Your task to perform on an android device: delete browsing data in the chrome app Image 0: 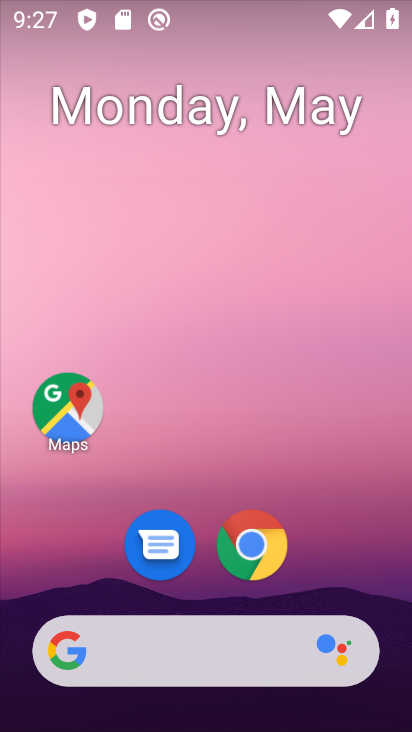
Step 0: click (262, 552)
Your task to perform on an android device: delete browsing data in the chrome app Image 1: 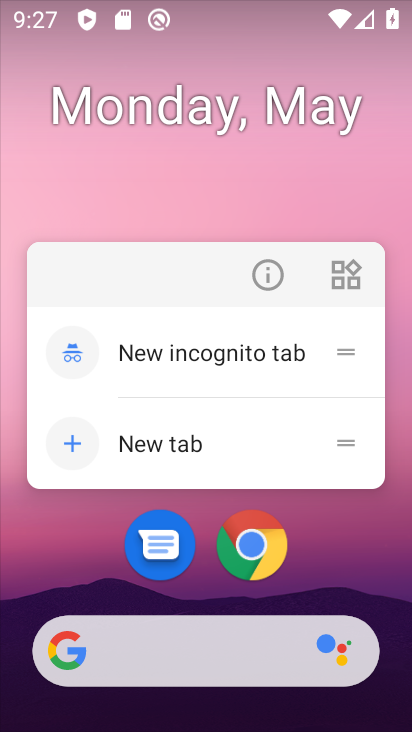
Step 1: click (264, 564)
Your task to perform on an android device: delete browsing data in the chrome app Image 2: 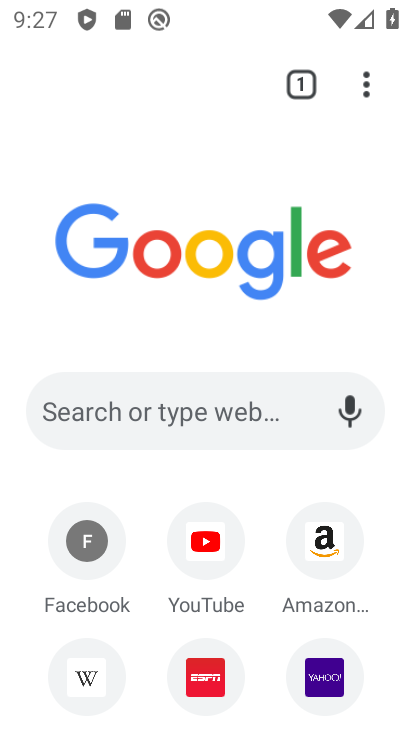
Step 2: click (366, 81)
Your task to perform on an android device: delete browsing data in the chrome app Image 3: 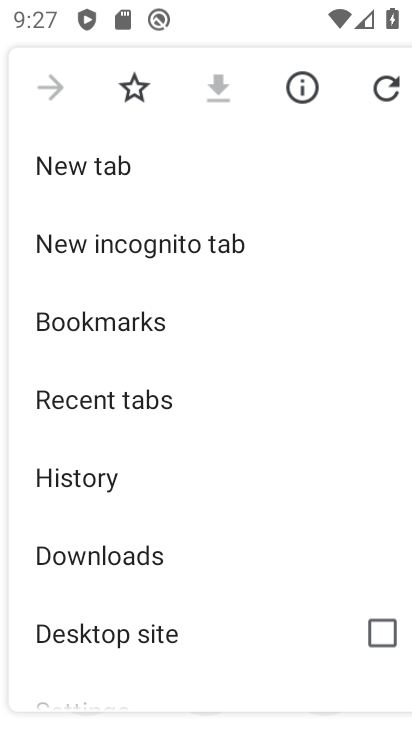
Step 3: click (116, 484)
Your task to perform on an android device: delete browsing data in the chrome app Image 4: 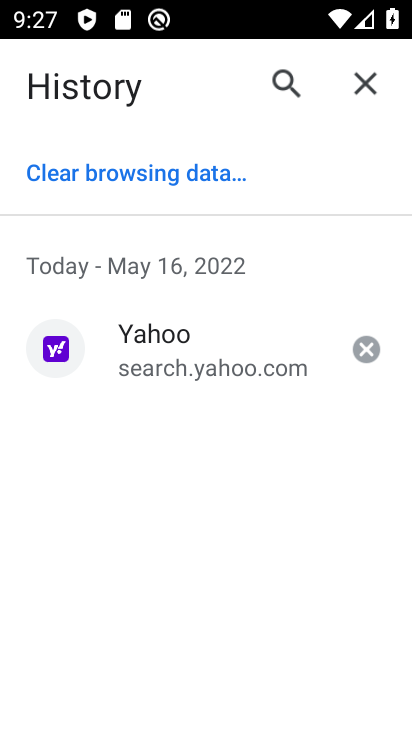
Step 4: click (196, 171)
Your task to perform on an android device: delete browsing data in the chrome app Image 5: 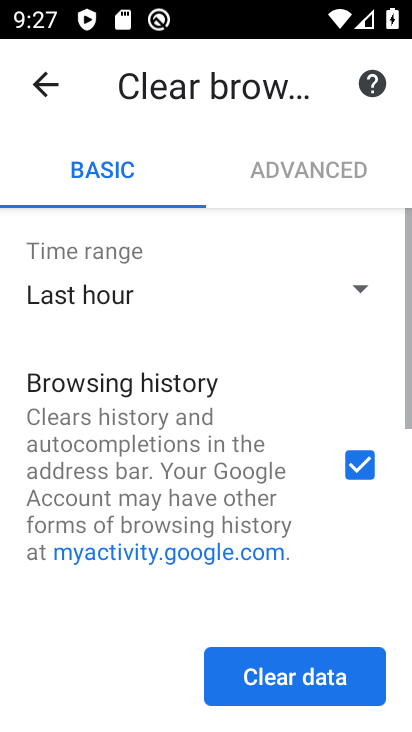
Step 5: drag from (301, 546) to (334, 272)
Your task to perform on an android device: delete browsing data in the chrome app Image 6: 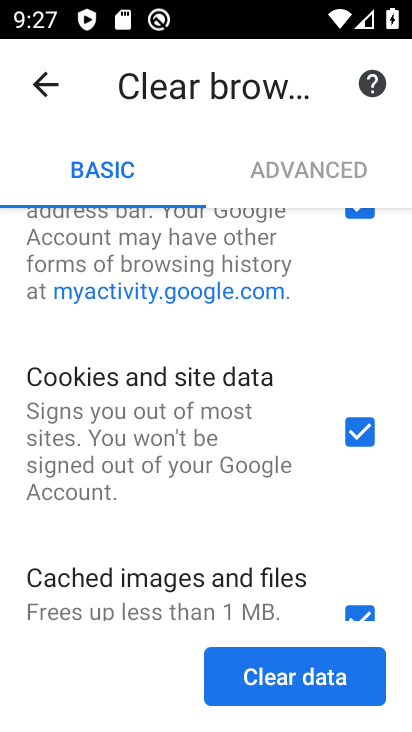
Step 6: click (356, 430)
Your task to perform on an android device: delete browsing data in the chrome app Image 7: 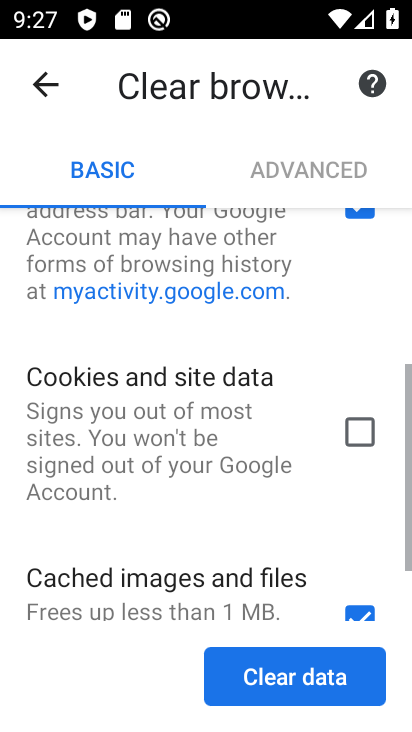
Step 7: click (356, 612)
Your task to perform on an android device: delete browsing data in the chrome app Image 8: 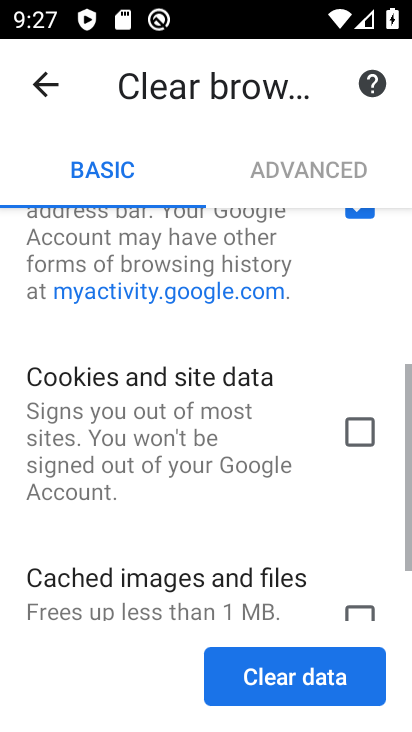
Step 8: click (306, 678)
Your task to perform on an android device: delete browsing data in the chrome app Image 9: 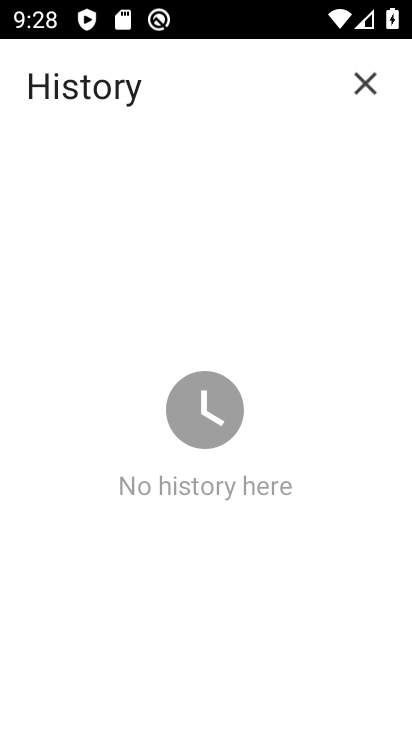
Step 9: task complete